Your task to perform on an android device: turn pop-ups off in chrome Image 0: 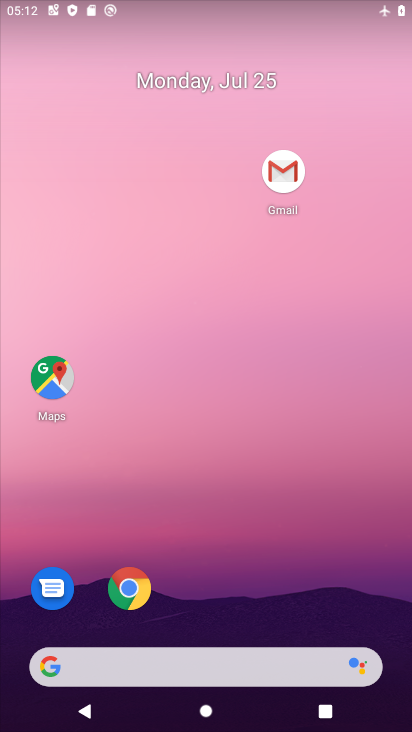
Step 0: drag from (211, 547) to (173, 1)
Your task to perform on an android device: turn pop-ups off in chrome Image 1: 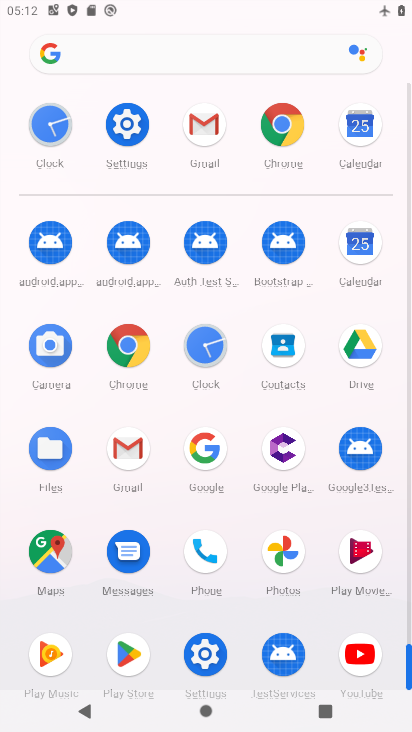
Step 1: click (288, 124)
Your task to perform on an android device: turn pop-ups off in chrome Image 2: 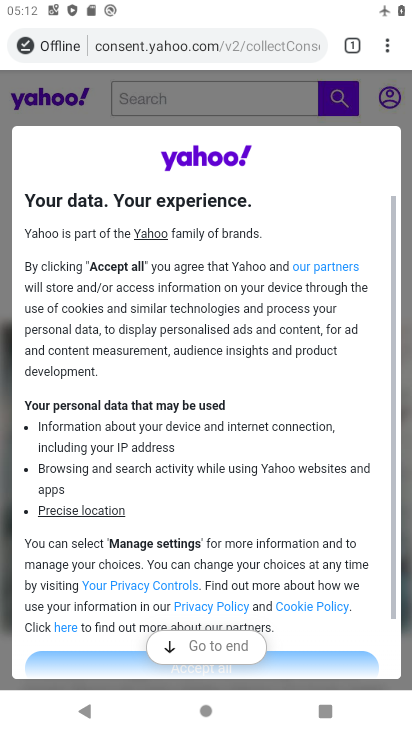
Step 2: drag from (385, 43) to (246, 517)
Your task to perform on an android device: turn pop-ups off in chrome Image 3: 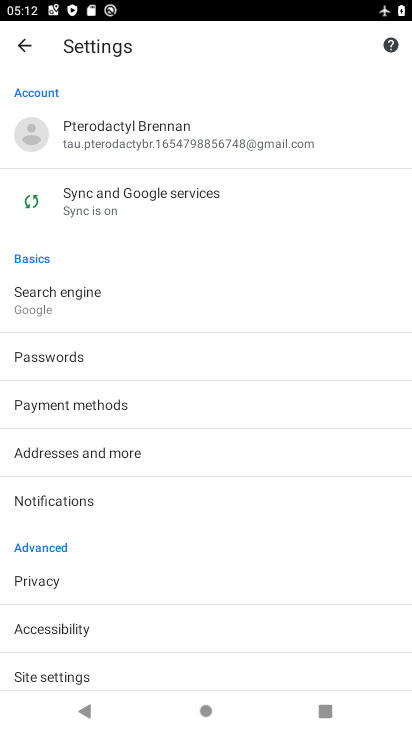
Step 3: drag from (141, 567) to (193, 165)
Your task to perform on an android device: turn pop-ups off in chrome Image 4: 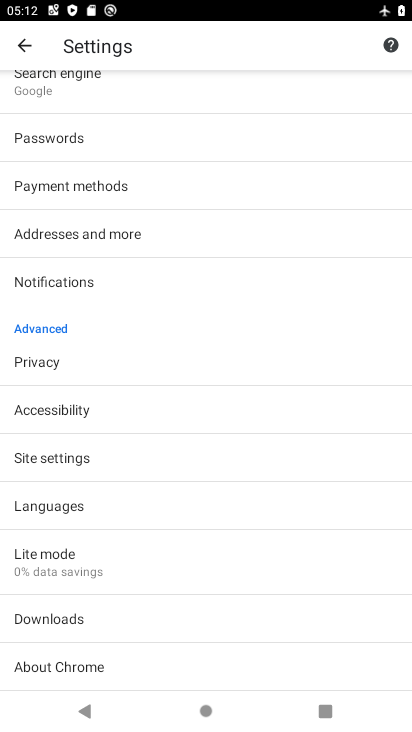
Step 4: click (65, 457)
Your task to perform on an android device: turn pop-ups off in chrome Image 5: 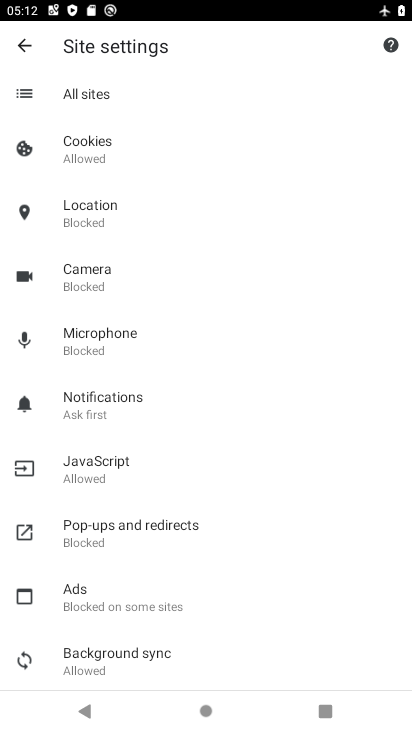
Step 5: click (124, 536)
Your task to perform on an android device: turn pop-ups off in chrome Image 6: 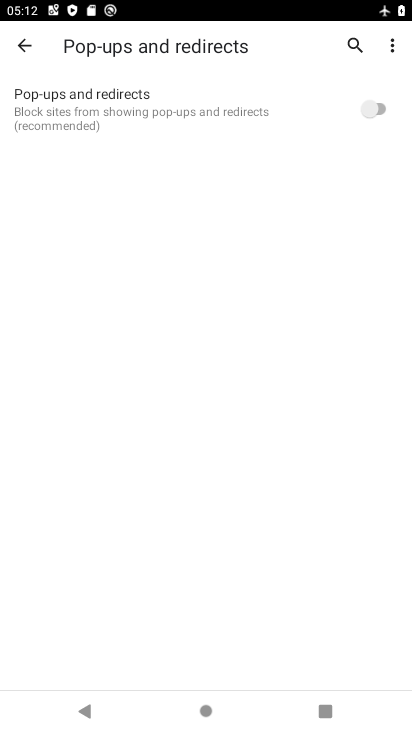
Step 6: task complete